Your task to perform on an android device: open the mobile data screen to see how much data has been used Image 0: 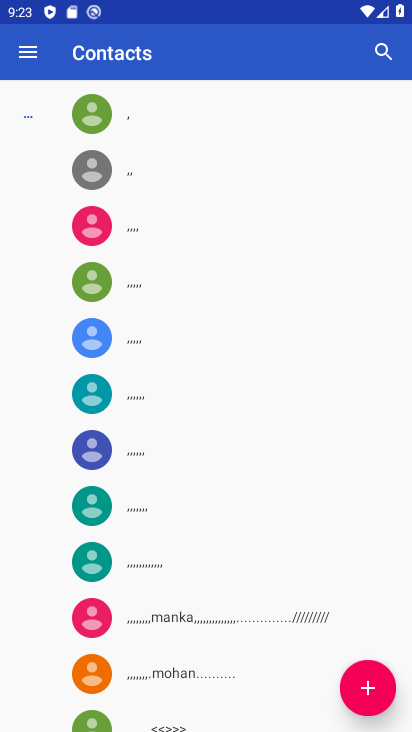
Step 0: press home button
Your task to perform on an android device: open the mobile data screen to see how much data has been used Image 1: 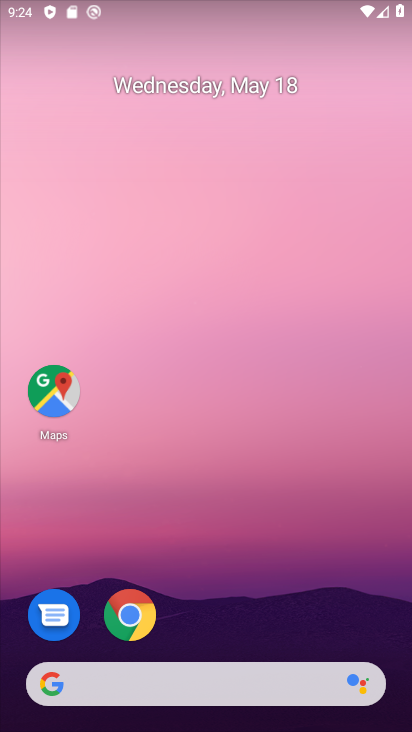
Step 1: drag from (244, 609) to (292, 53)
Your task to perform on an android device: open the mobile data screen to see how much data has been used Image 2: 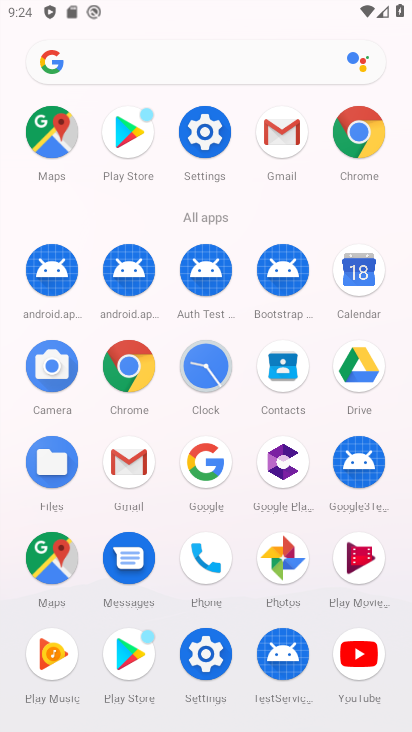
Step 2: click (209, 132)
Your task to perform on an android device: open the mobile data screen to see how much data has been used Image 3: 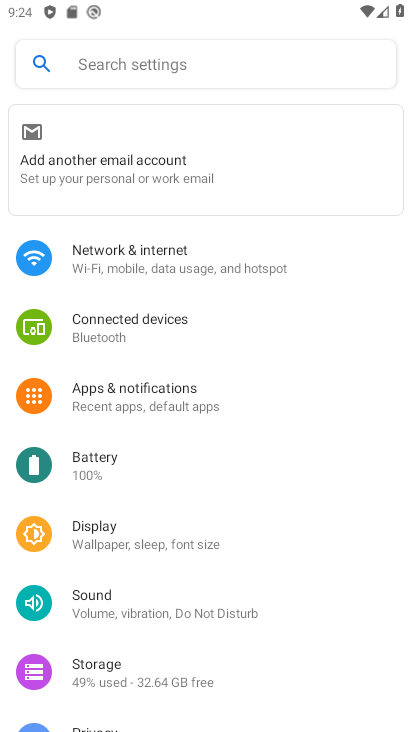
Step 3: click (174, 275)
Your task to perform on an android device: open the mobile data screen to see how much data has been used Image 4: 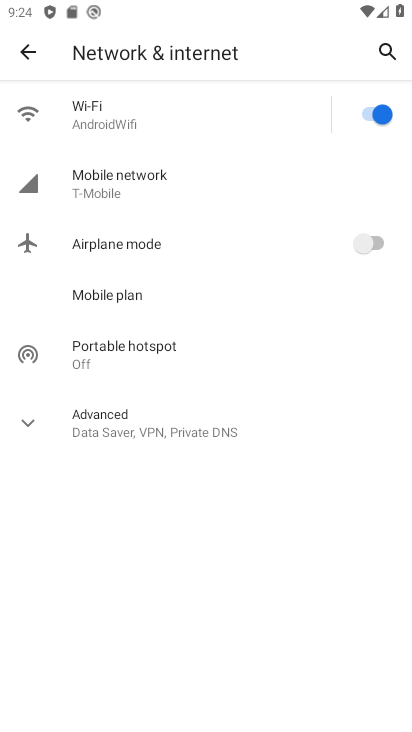
Step 4: click (141, 180)
Your task to perform on an android device: open the mobile data screen to see how much data has been used Image 5: 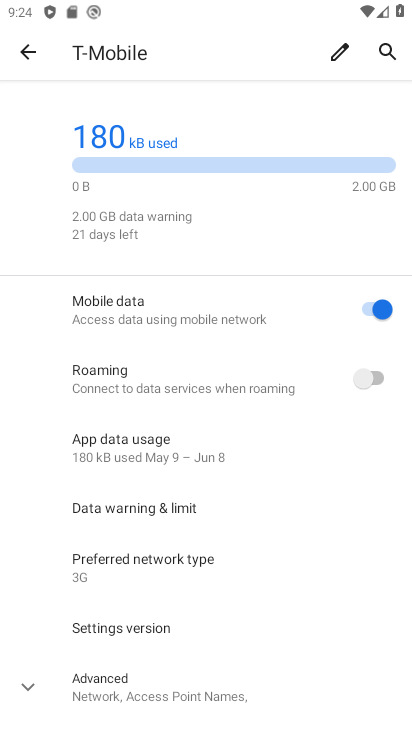
Step 5: task complete